Your task to perform on an android device: Open the Play Movies app and select the watchlist tab. Image 0: 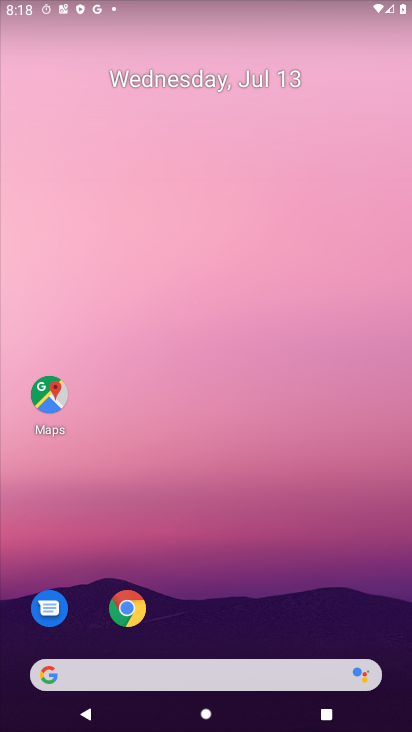
Step 0: drag from (245, 685) to (197, 102)
Your task to perform on an android device: Open the Play Movies app and select the watchlist tab. Image 1: 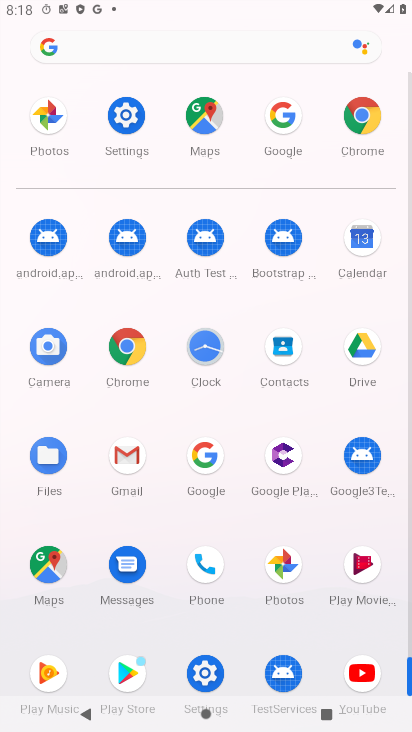
Step 1: click (368, 561)
Your task to perform on an android device: Open the Play Movies app and select the watchlist tab. Image 2: 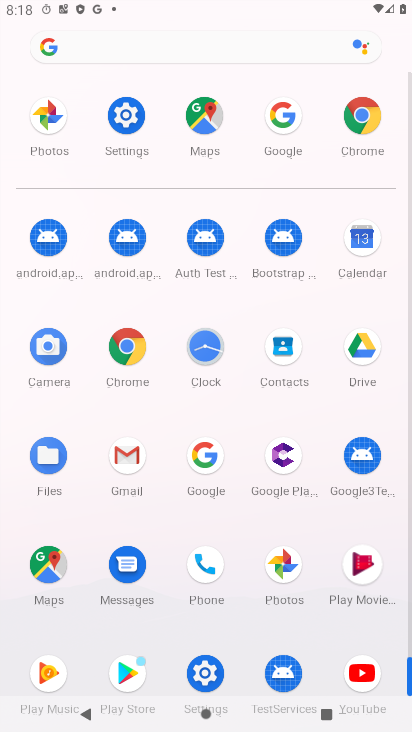
Step 2: click (359, 549)
Your task to perform on an android device: Open the Play Movies app and select the watchlist tab. Image 3: 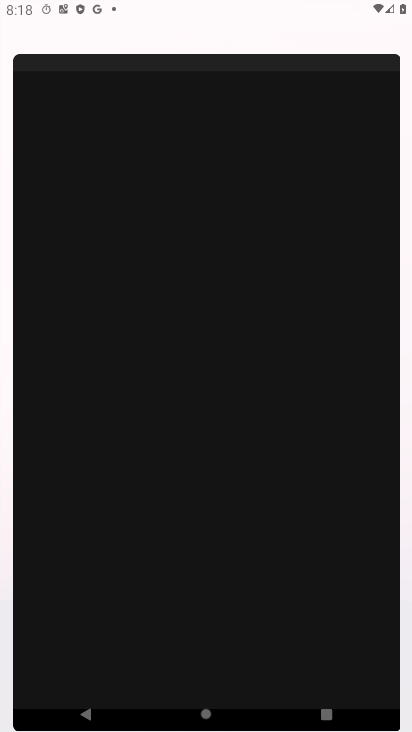
Step 3: click (359, 549)
Your task to perform on an android device: Open the Play Movies app and select the watchlist tab. Image 4: 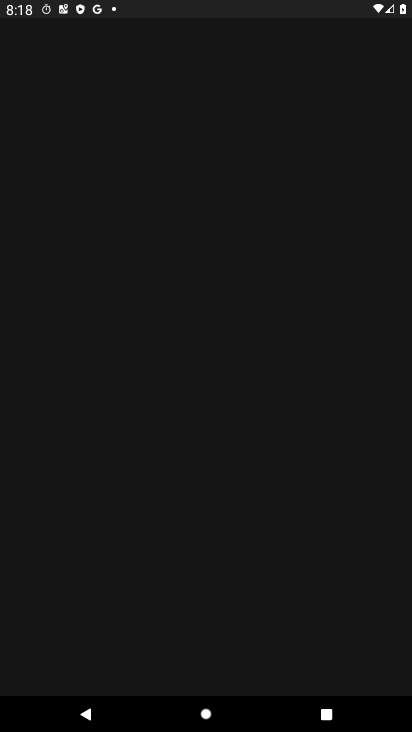
Step 4: click (359, 548)
Your task to perform on an android device: Open the Play Movies app and select the watchlist tab. Image 5: 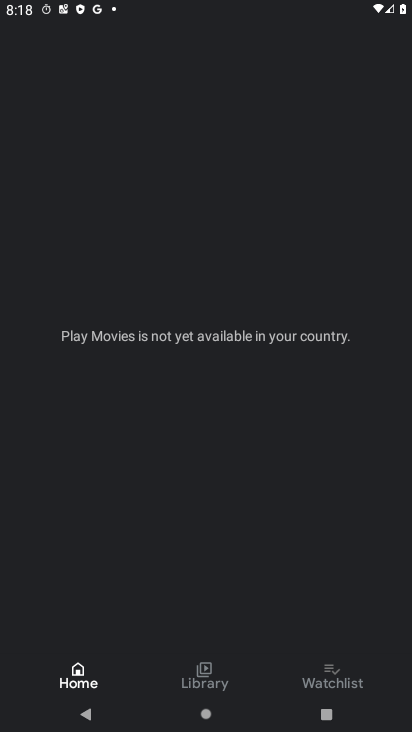
Step 5: click (343, 674)
Your task to perform on an android device: Open the Play Movies app and select the watchlist tab. Image 6: 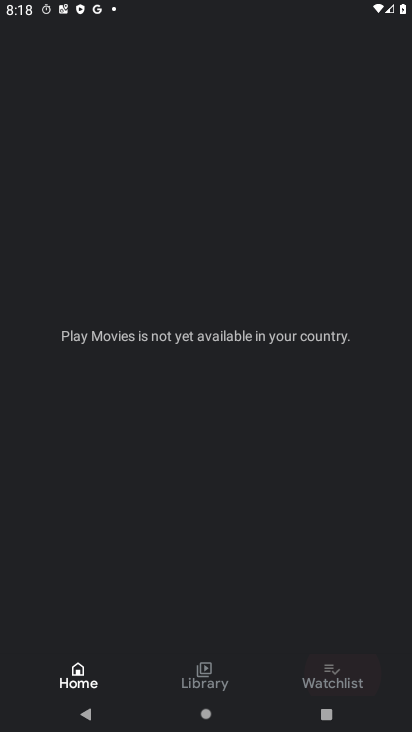
Step 6: click (343, 674)
Your task to perform on an android device: Open the Play Movies app and select the watchlist tab. Image 7: 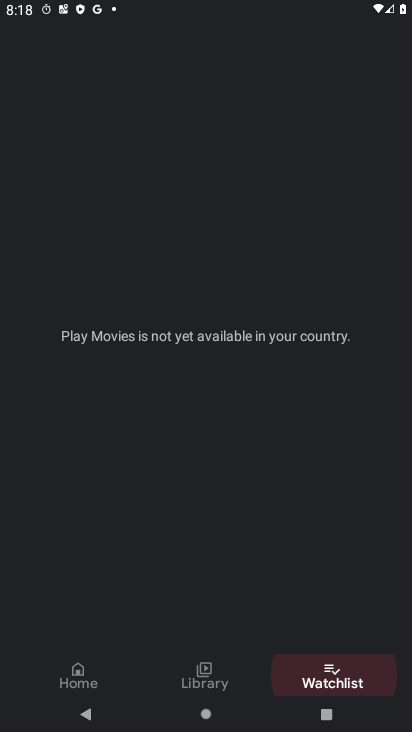
Step 7: click (343, 671)
Your task to perform on an android device: Open the Play Movies app and select the watchlist tab. Image 8: 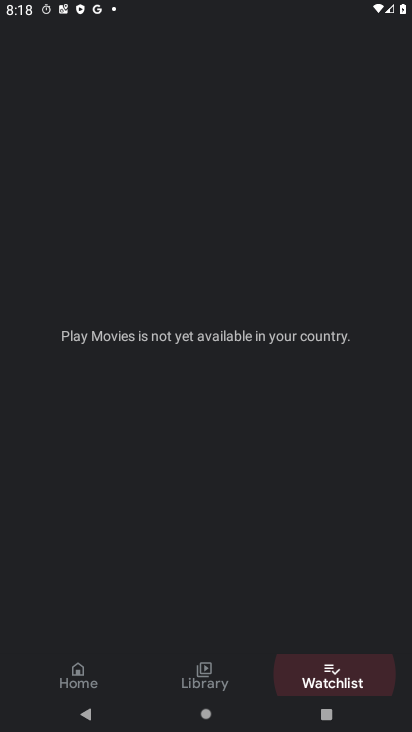
Step 8: click (343, 671)
Your task to perform on an android device: Open the Play Movies app and select the watchlist tab. Image 9: 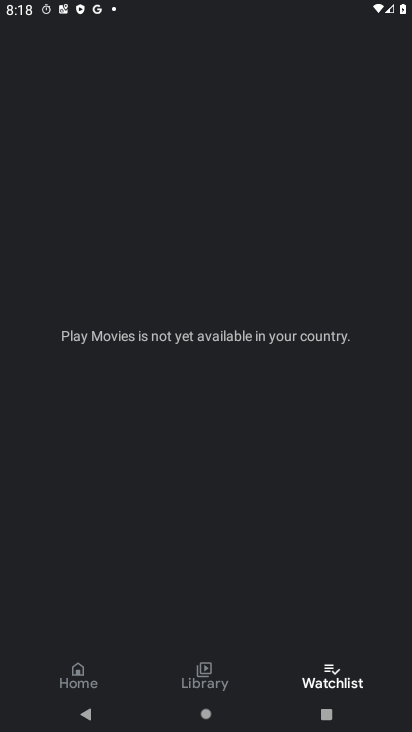
Step 9: task complete